Your task to perform on an android device: Open Google Chrome and click the shortcut for Amazon.com Image 0: 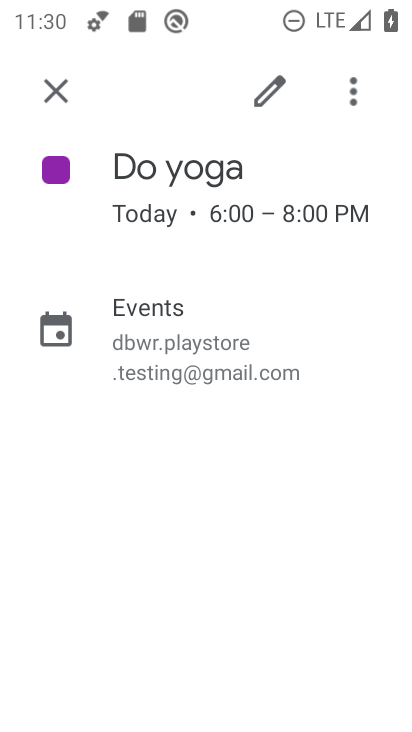
Step 0: press home button
Your task to perform on an android device: Open Google Chrome and click the shortcut for Amazon.com Image 1: 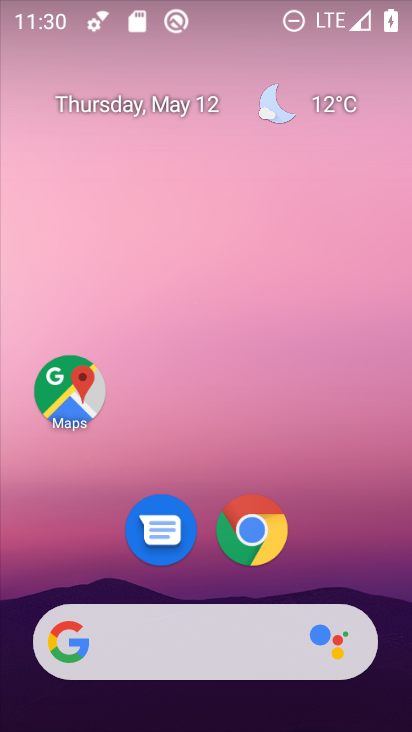
Step 1: click (259, 539)
Your task to perform on an android device: Open Google Chrome and click the shortcut for Amazon.com Image 2: 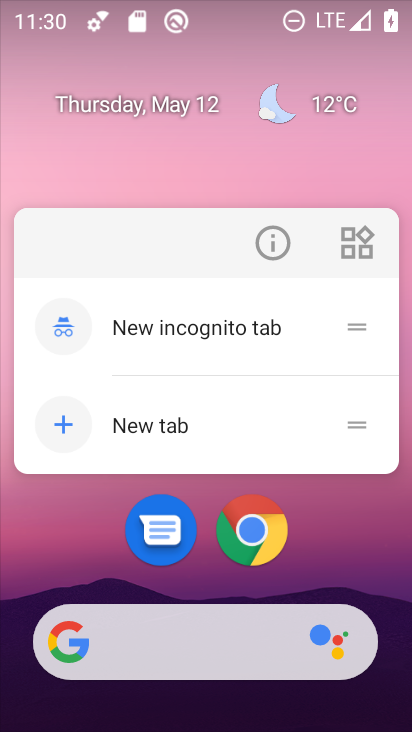
Step 2: click (249, 530)
Your task to perform on an android device: Open Google Chrome and click the shortcut for Amazon.com Image 3: 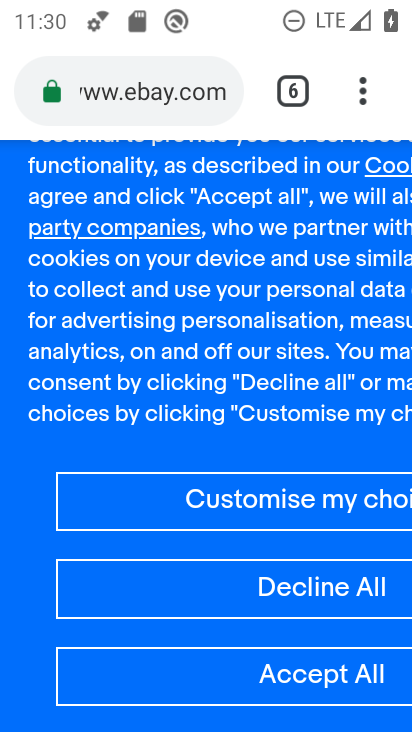
Step 3: drag from (362, 98) to (247, 164)
Your task to perform on an android device: Open Google Chrome and click the shortcut for Amazon.com Image 4: 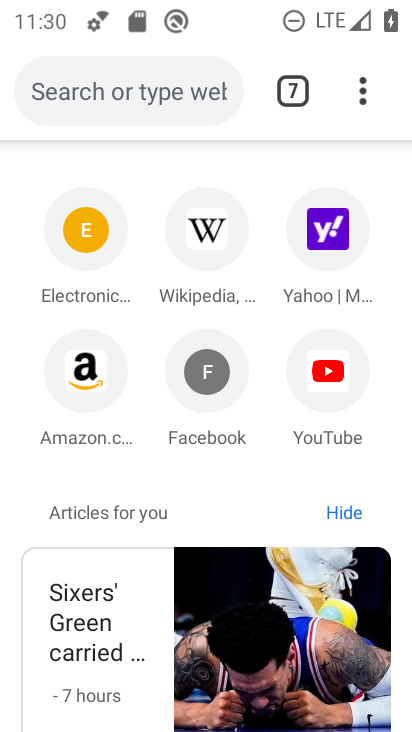
Step 4: click (86, 381)
Your task to perform on an android device: Open Google Chrome and click the shortcut for Amazon.com Image 5: 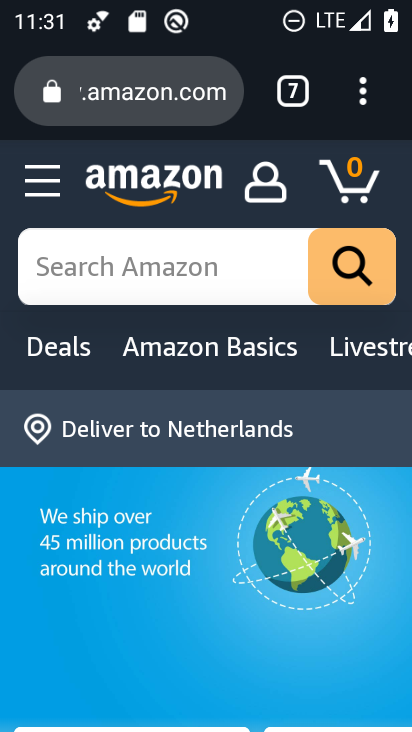
Step 5: task complete